Your task to perform on an android device: Go to wifi settings Image 0: 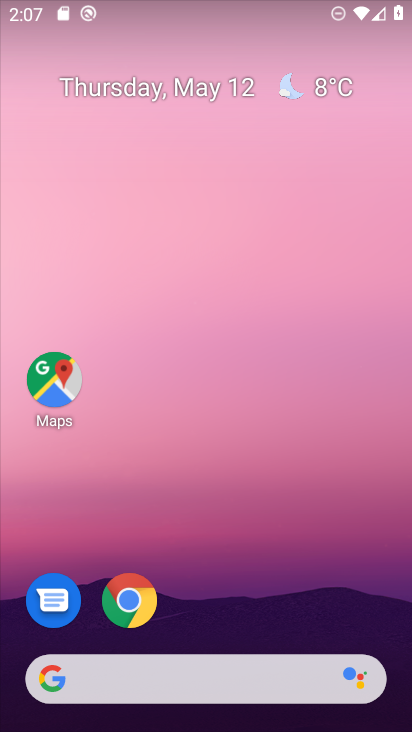
Step 0: drag from (199, 729) to (204, 158)
Your task to perform on an android device: Go to wifi settings Image 1: 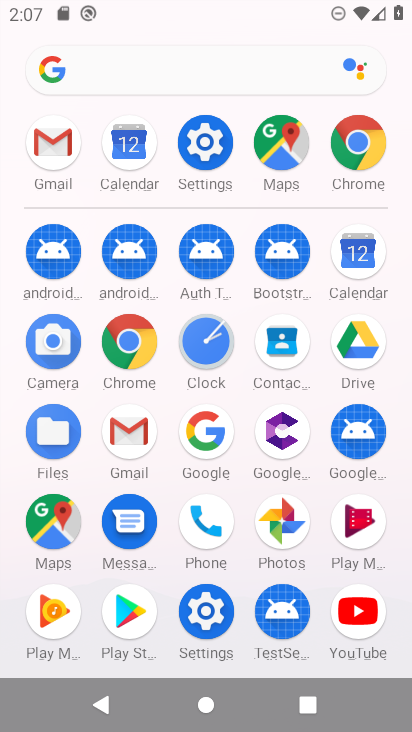
Step 1: click (208, 144)
Your task to perform on an android device: Go to wifi settings Image 2: 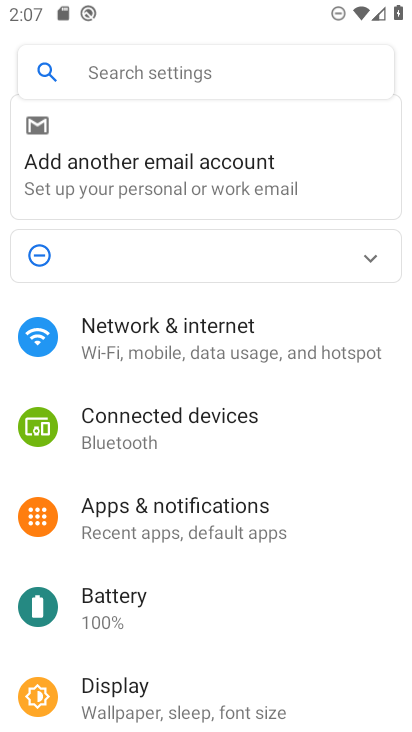
Step 2: click (141, 332)
Your task to perform on an android device: Go to wifi settings Image 3: 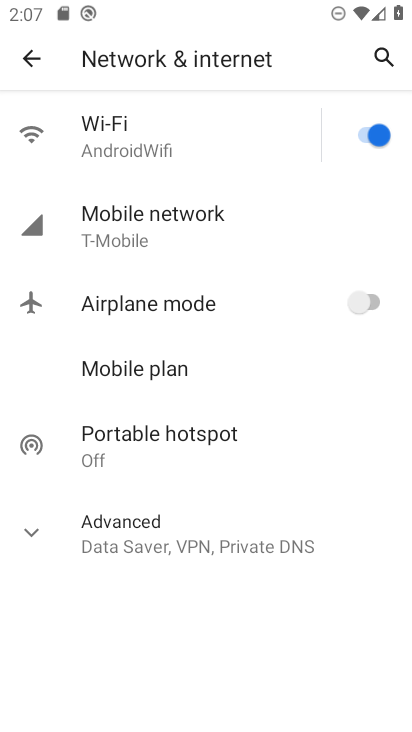
Step 3: click (122, 137)
Your task to perform on an android device: Go to wifi settings Image 4: 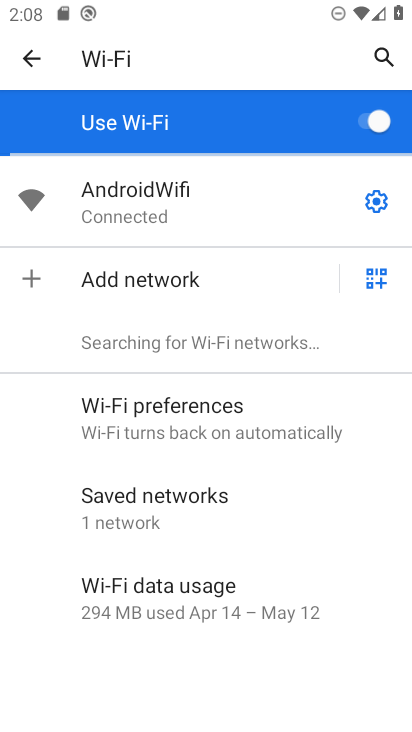
Step 4: task complete